Your task to perform on an android device: toggle notification dots Image 0: 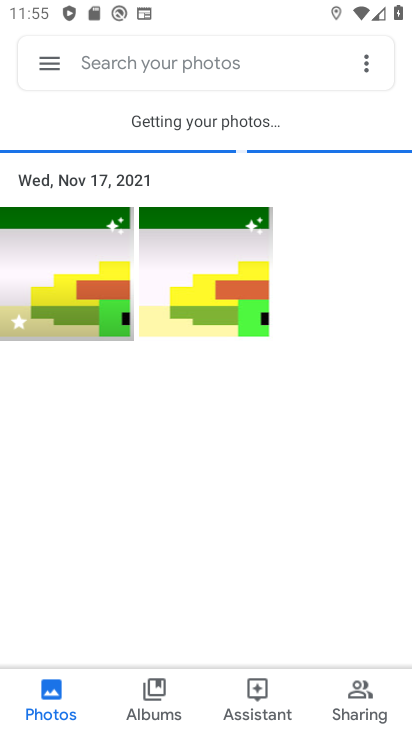
Step 0: press home button
Your task to perform on an android device: toggle notification dots Image 1: 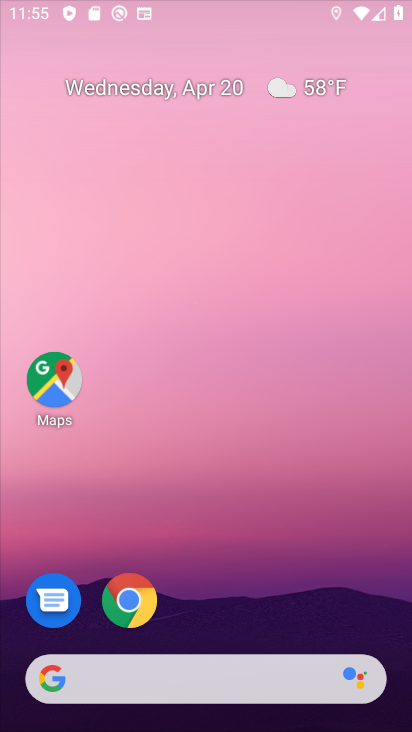
Step 1: drag from (195, 617) to (172, 0)
Your task to perform on an android device: toggle notification dots Image 2: 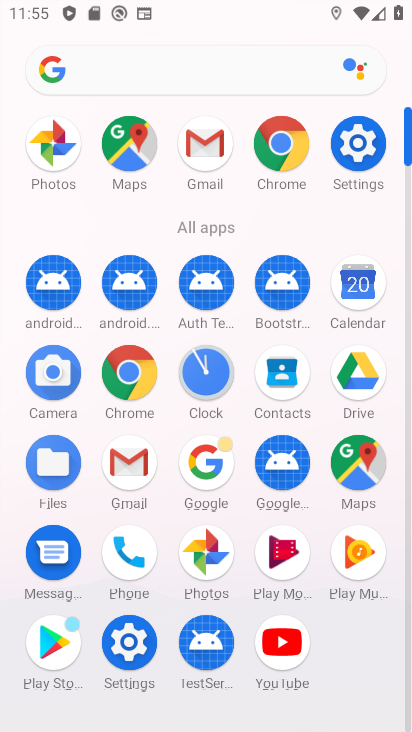
Step 2: click (377, 151)
Your task to perform on an android device: toggle notification dots Image 3: 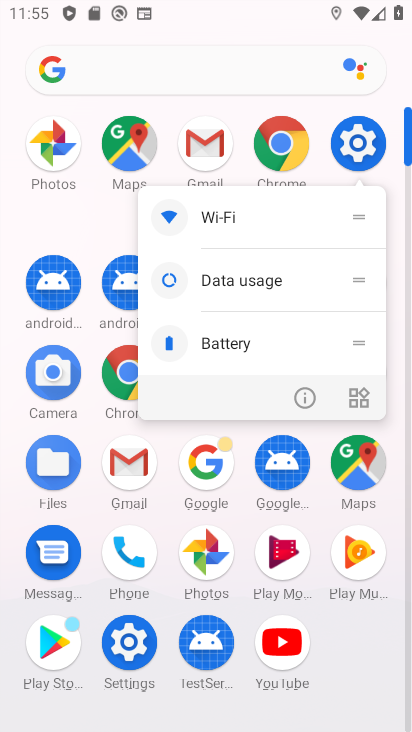
Step 3: click (351, 150)
Your task to perform on an android device: toggle notification dots Image 4: 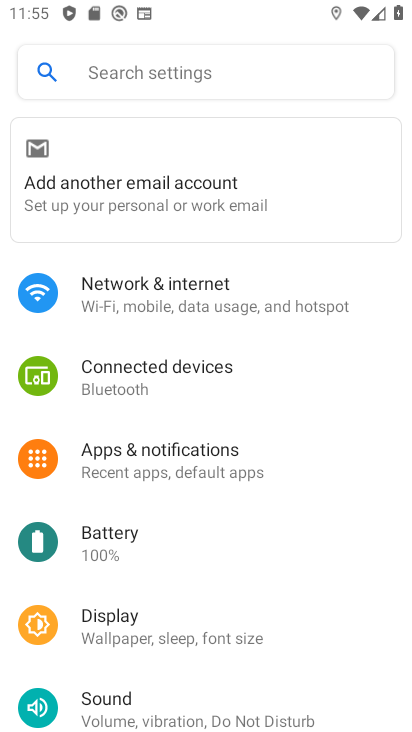
Step 4: click (206, 455)
Your task to perform on an android device: toggle notification dots Image 5: 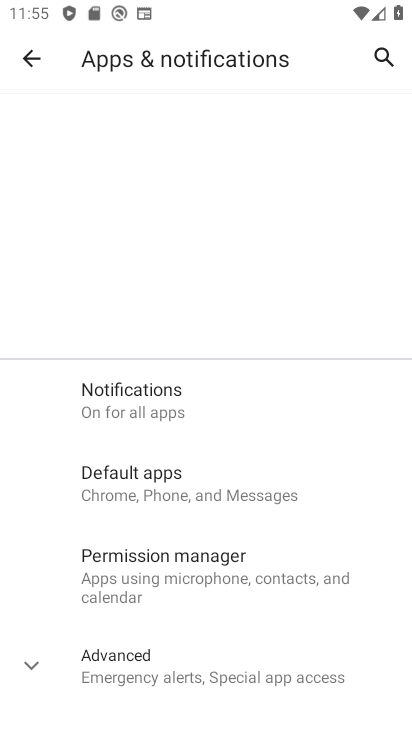
Step 5: click (161, 401)
Your task to perform on an android device: toggle notification dots Image 6: 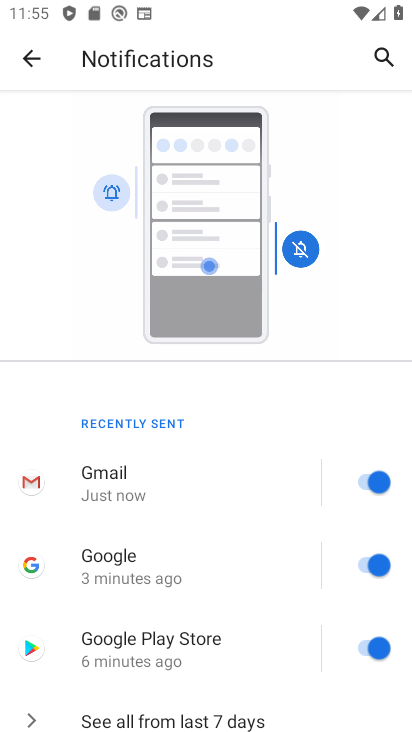
Step 6: drag from (226, 551) to (204, 82)
Your task to perform on an android device: toggle notification dots Image 7: 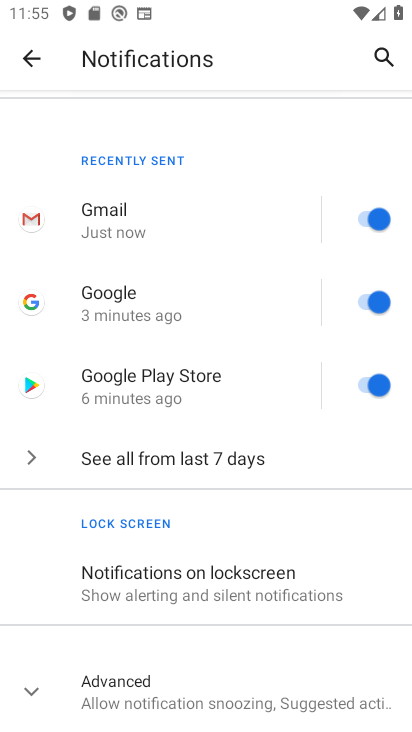
Step 7: drag from (233, 605) to (217, 111)
Your task to perform on an android device: toggle notification dots Image 8: 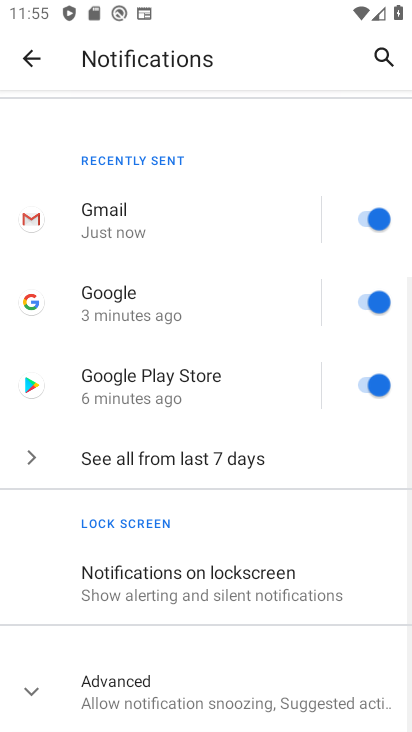
Step 8: click (219, 681)
Your task to perform on an android device: toggle notification dots Image 9: 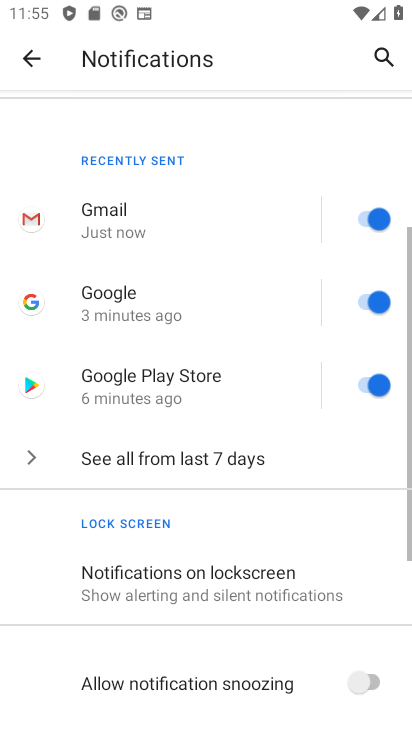
Step 9: drag from (221, 666) to (173, 262)
Your task to perform on an android device: toggle notification dots Image 10: 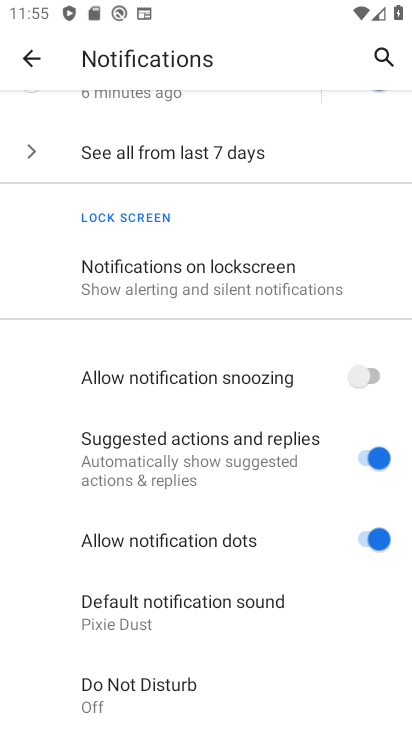
Step 10: click (336, 534)
Your task to perform on an android device: toggle notification dots Image 11: 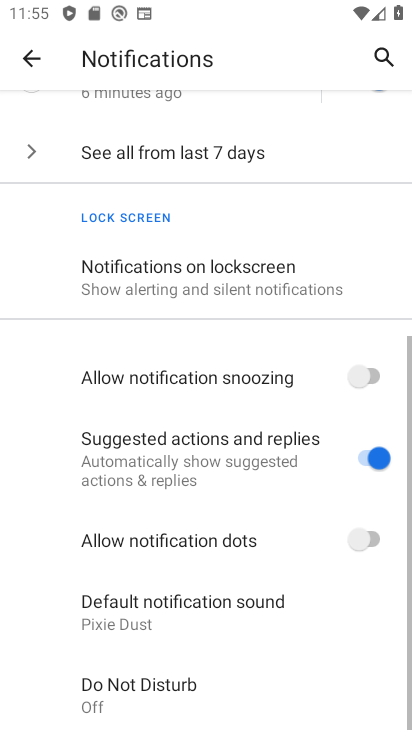
Step 11: task complete